Your task to perform on an android device: What's on my calendar tomorrow? Image 0: 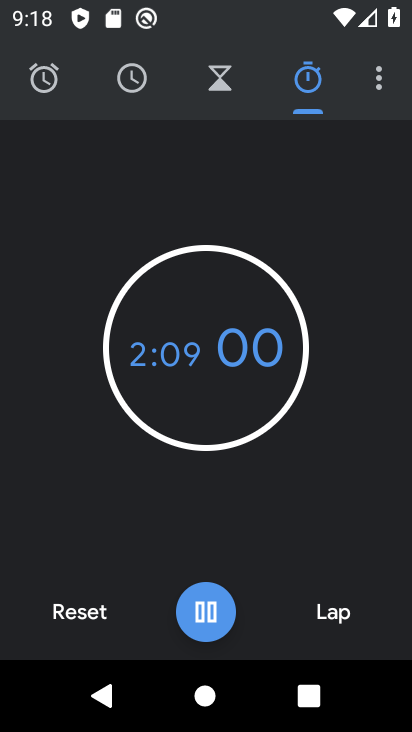
Step 0: press home button
Your task to perform on an android device: What's on my calendar tomorrow? Image 1: 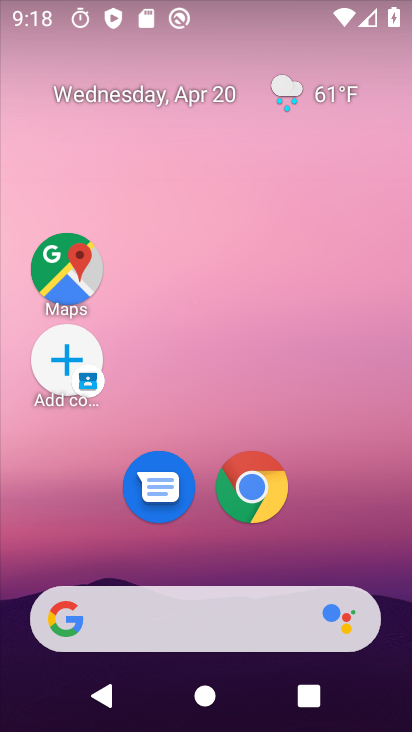
Step 1: drag from (356, 503) to (353, 127)
Your task to perform on an android device: What's on my calendar tomorrow? Image 2: 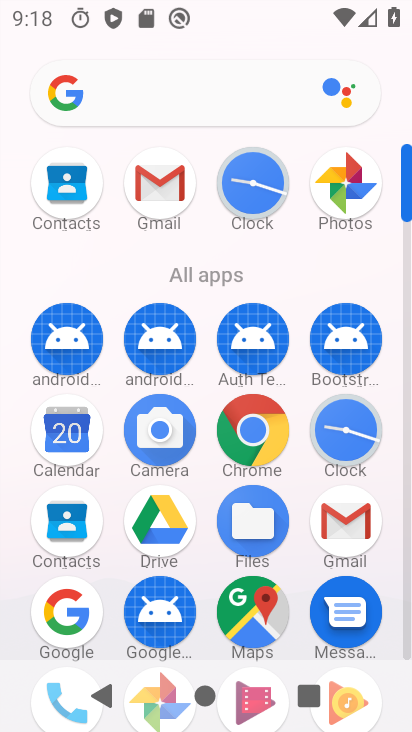
Step 2: click (70, 433)
Your task to perform on an android device: What's on my calendar tomorrow? Image 3: 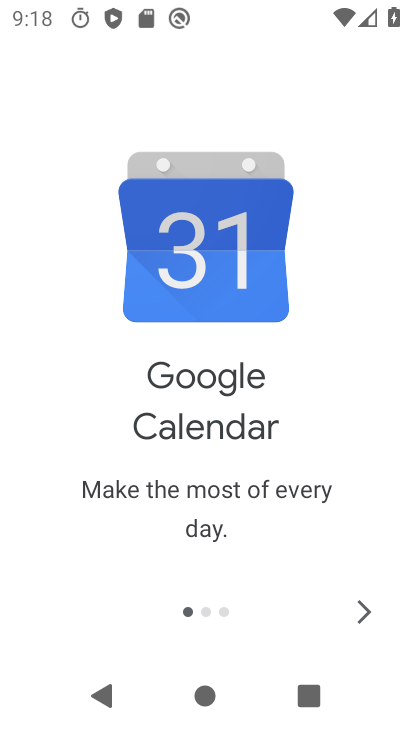
Step 3: click (367, 607)
Your task to perform on an android device: What's on my calendar tomorrow? Image 4: 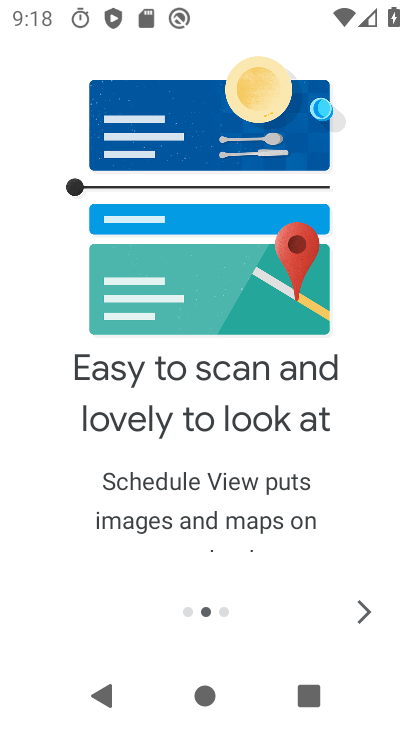
Step 4: click (367, 607)
Your task to perform on an android device: What's on my calendar tomorrow? Image 5: 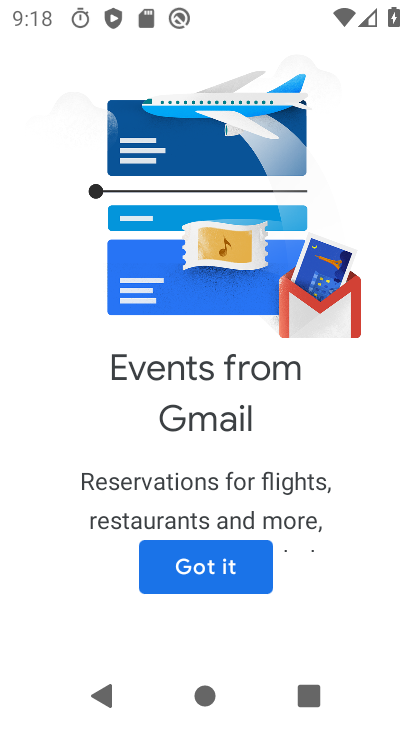
Step 5: click (170, 561)
Your task to perform on an android device: What's on my calendar tomorrow? Image 6: 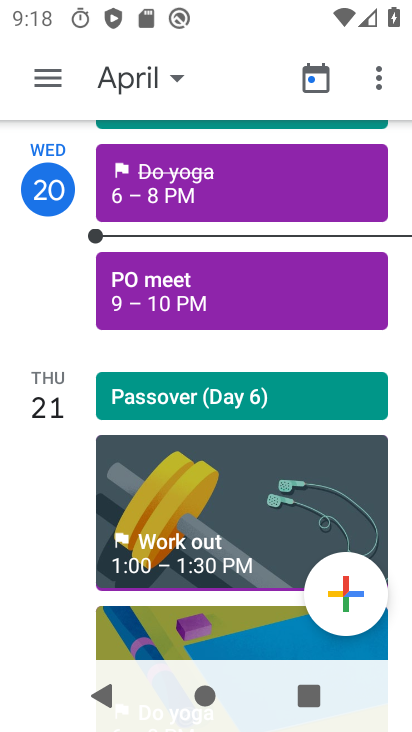
Step 6: click (146, 71)
Your task to perform on an android device: What's on my calendar tomorrow? Image 7: 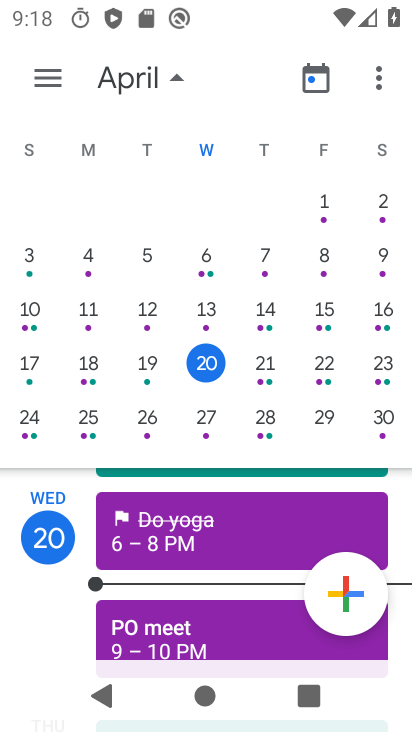
Step 7: click (268, 380)
Your task to perform on an android device: What's on my calendar tomorrow? Image 8: 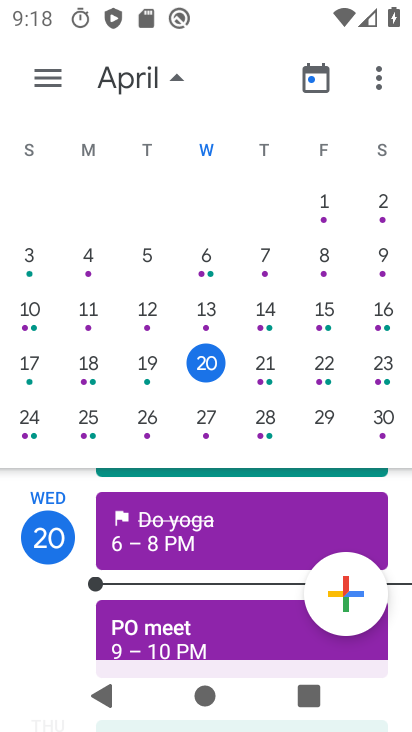
Step 8: click (271, 363)
Your task to perform on an android device: What's on my calendar tomorrow? Image 9: 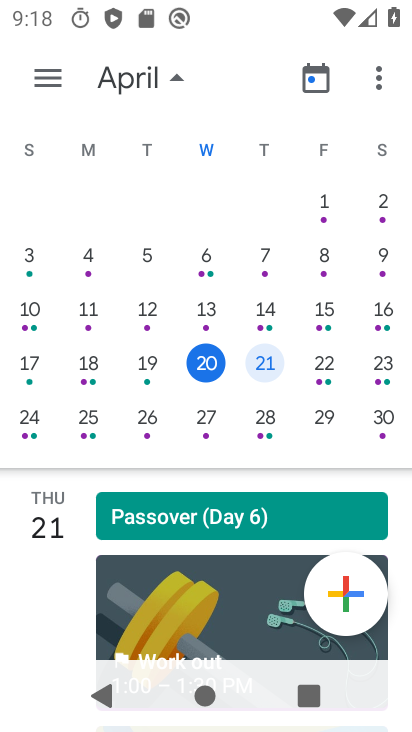
Step 9: task complete